Your task to perform on an android device: Open Chrome and go to the settings page Image 0: 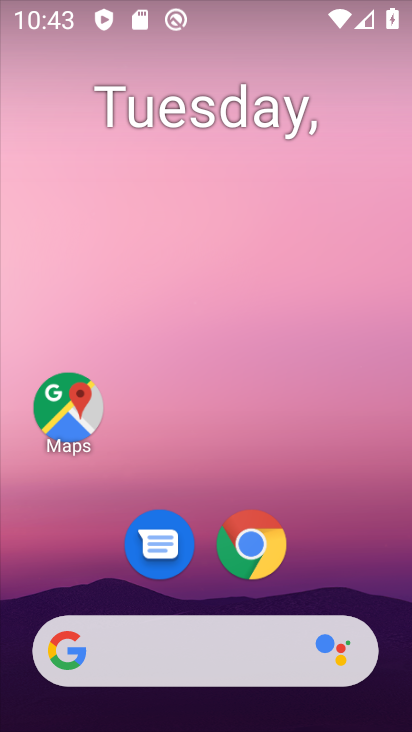
Step 0: drag from (399, 627) to (274, 11)
Your task to perform on an android device: Open Chrome and go to the settings page Image 1: 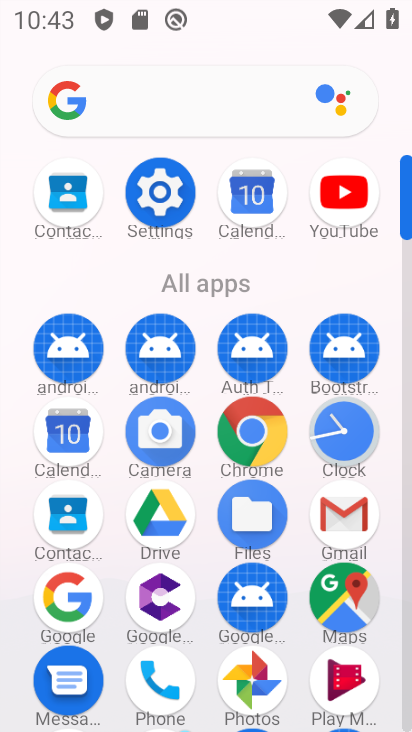
Step 1: click (262, 426)
Your task to perform on an android device: Open Chrome and go to the settings page Image 2: 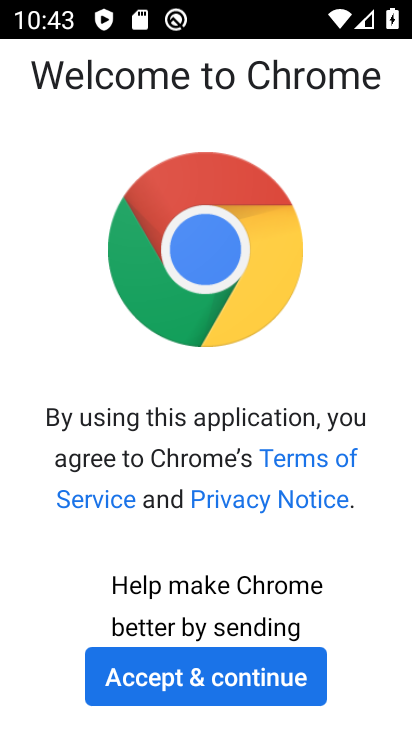
Step 2: click (230, 693)
Your task to perform on an android device: Open Chrome and go to the settings page Image 3: 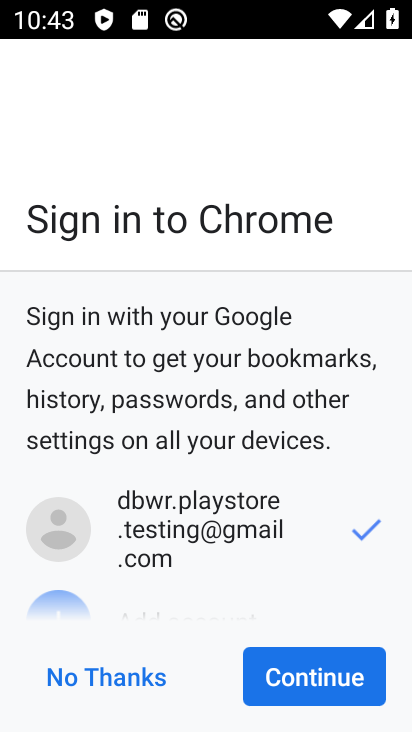
Step 3: click (295, 688)
Your task to perform on an android device: Open Chrome and go to the settings page Image 4: 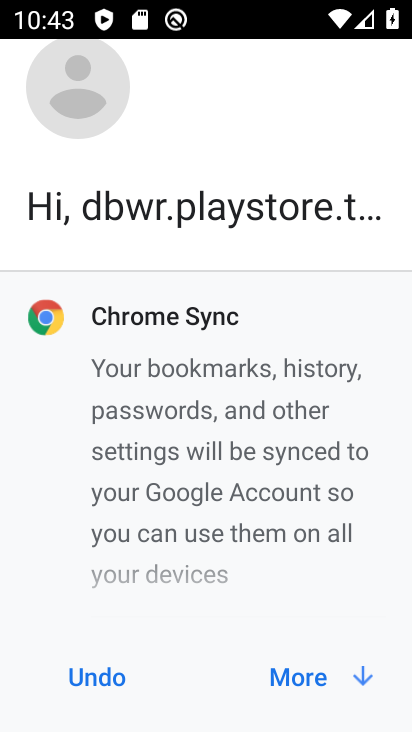
Step 4: click (295, 688)
Your task to perform on an android device: Open Chrome and go to the settings page Image 5: 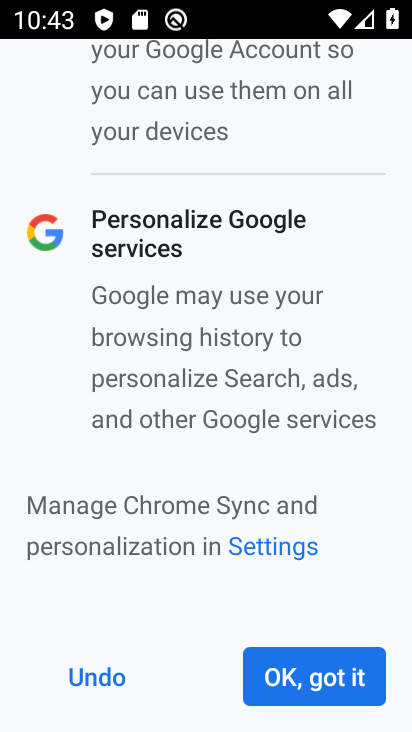
Step 5: click (295, 688)
Your task to perform on an android device: Open Chrome and go to the settings page Image 6: 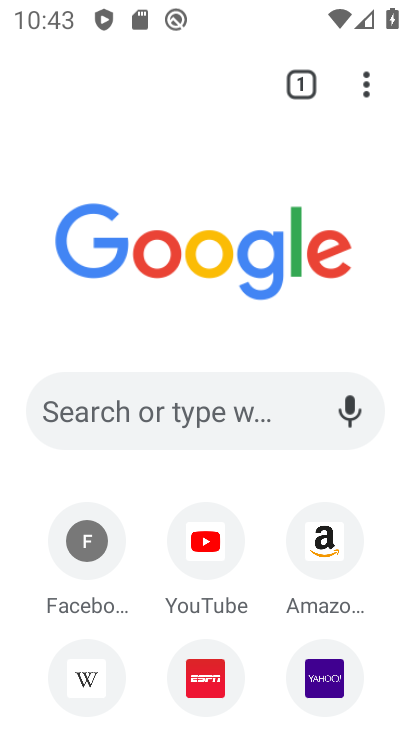
Step 6: click (369, 87)
Your task to perform on an android device: Open Chrome and go to the settings page Image 7: 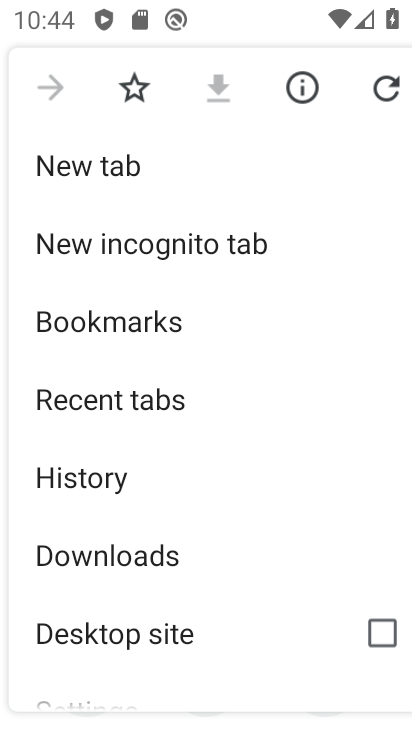
Step 7: drag from (233, 623) to (237, 185)
Your task to perform on an android device: Open Chrome and go to the settings page Image 8: 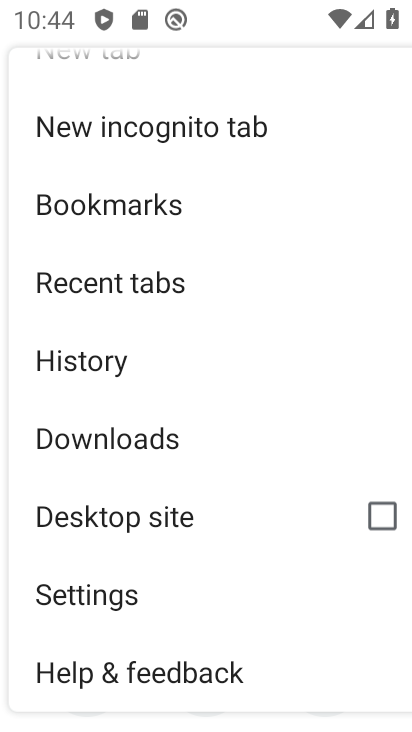
Step 8: click (45, 619)
Your task to perform on an android device: Open Chrome and go to the settings page Image 9: 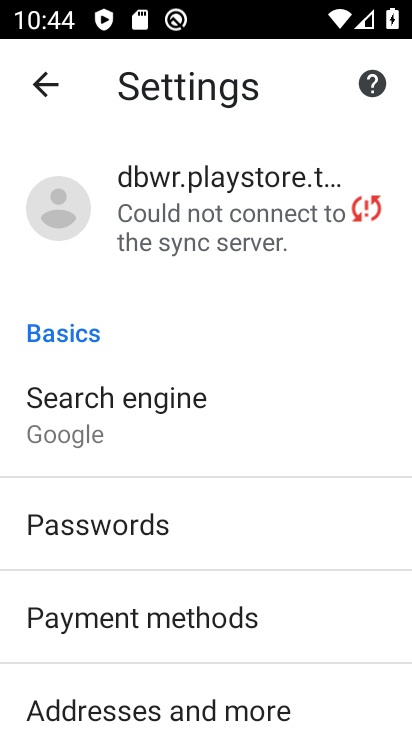
Step 9: task complete